Your task to perform on an android device: Open settings Image 0: 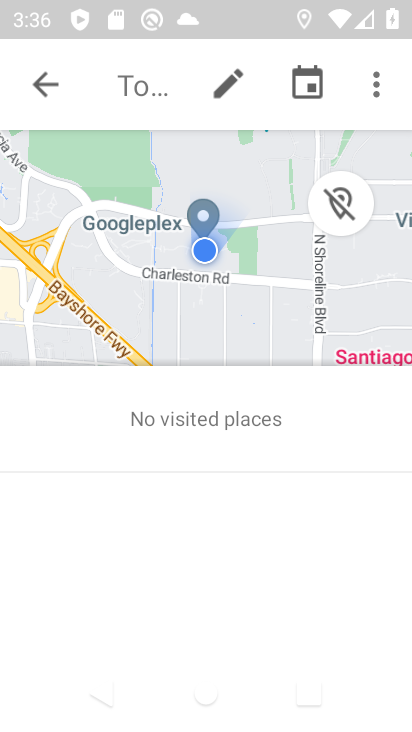
Step 0: press home button
Your task to perform on an android device: Open settings Image 1: 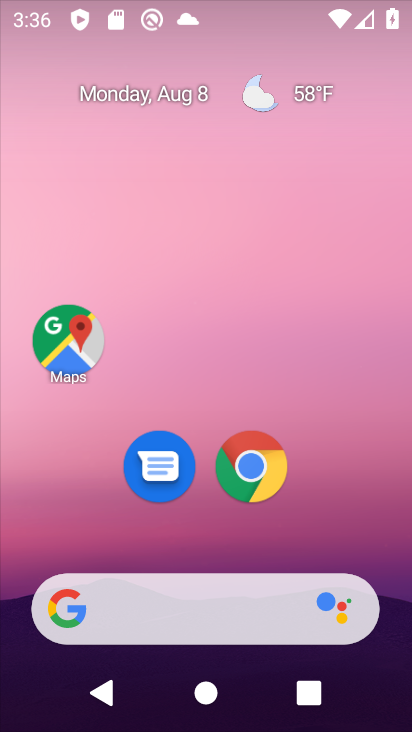
Step 1: drag from (241, 595) to (240, 196)
Your task to perform on an android device: Open settings Image 2: 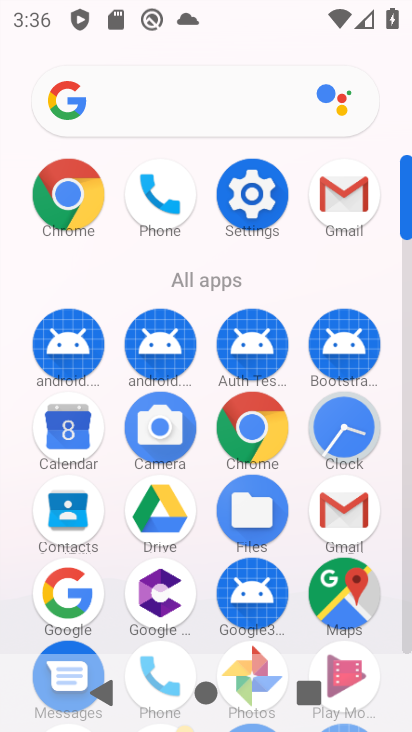
Step 2: click (267, 183)
Your task to perform on an android device: Open settings Image 3: 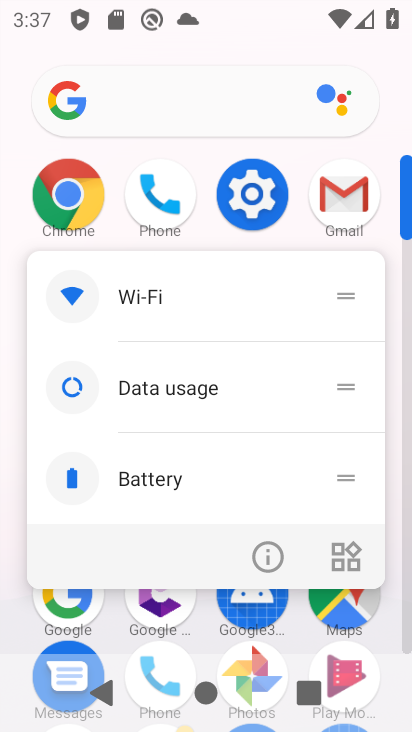
Step 3: click (267, 183)
Your task to perform on an android device: Open settings Image 4: 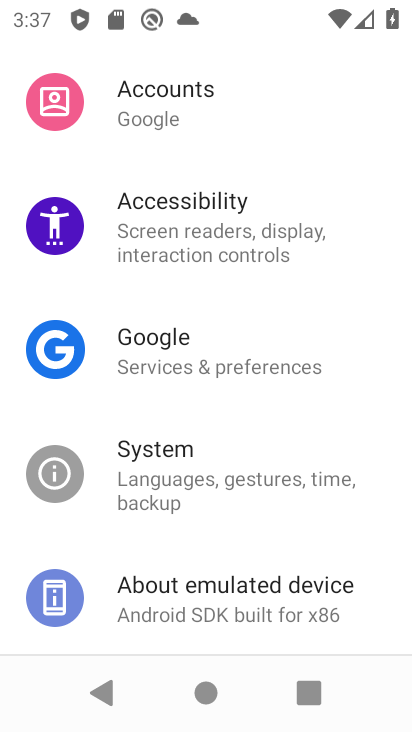
Step 4: task complete